Your task to perform on an android device: open a new tab in the chrome app Image 0: 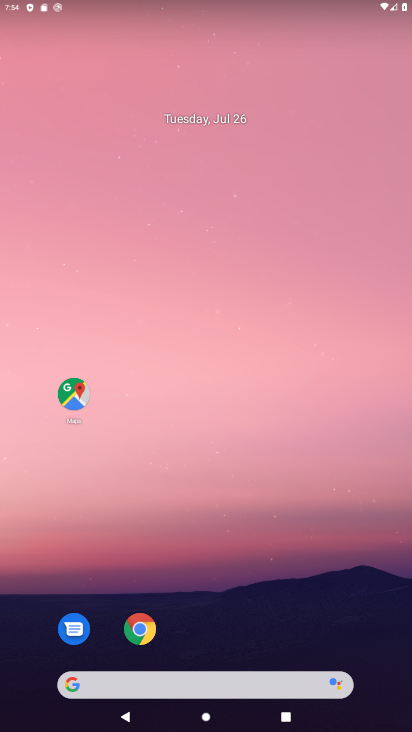
Step 0: press home button
Your task to perform on an android device: open a new tab in the chrome app Image 1: 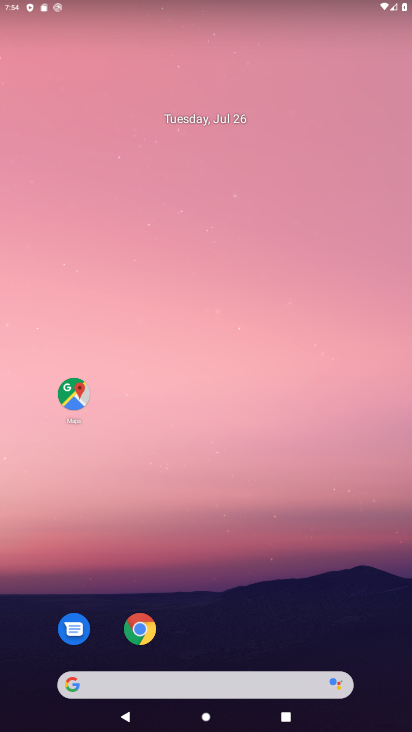
Step 1: click (135, 621)
Your task to perform on an android device: open a new tab in the chrome app Image 2: 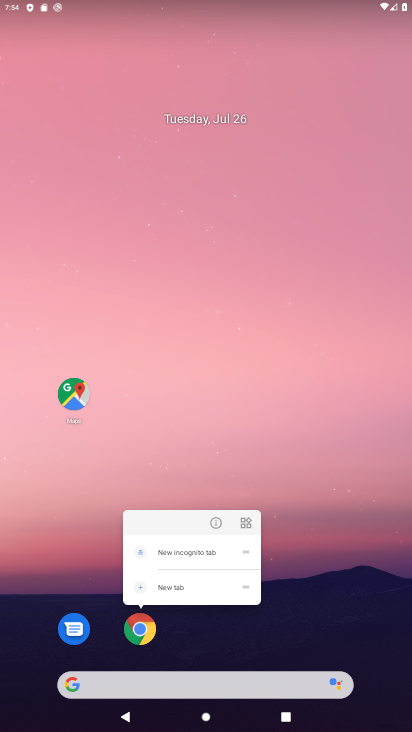
Step 2: click (139, 625)
Your task to perform on an android device: open a new tab in the chrome app Image 3: 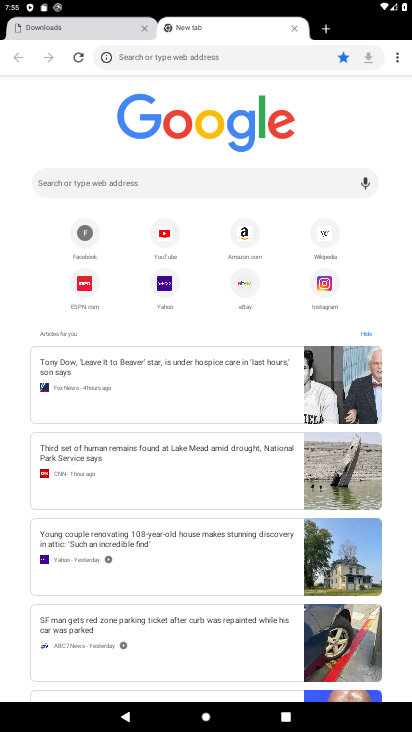
Step 3: click (329, 27)
Your task to perform on an android device: open a new tab in the chrome app Image 4: 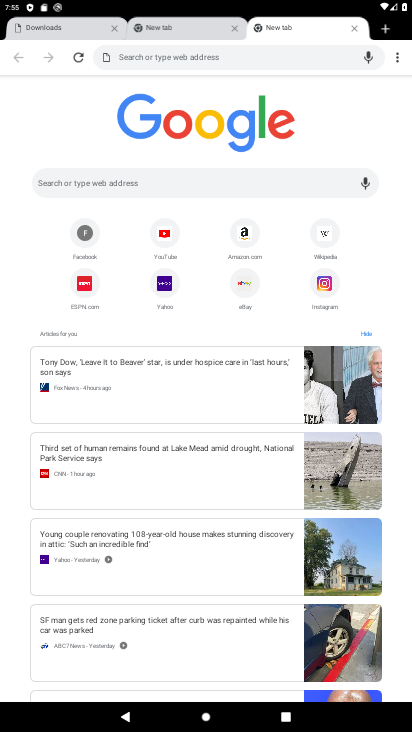
Step 4: task complete